Your task to perform on an android device: Open Google Maps Image 0: 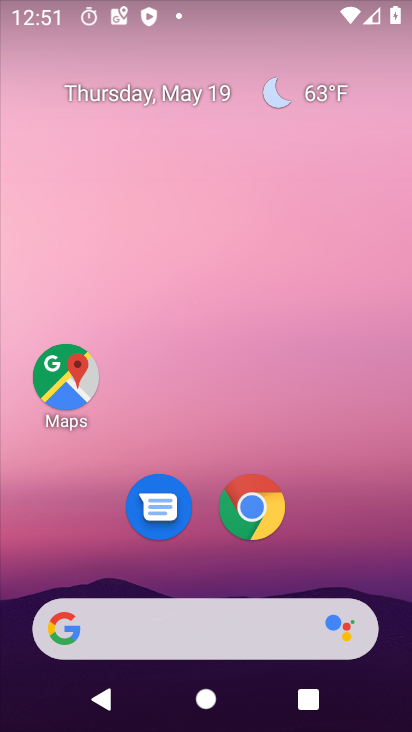
Step 0: drag from (299, 556) to (299, 159)
Your task to perform on an android device: Open Google Maps Image 1: 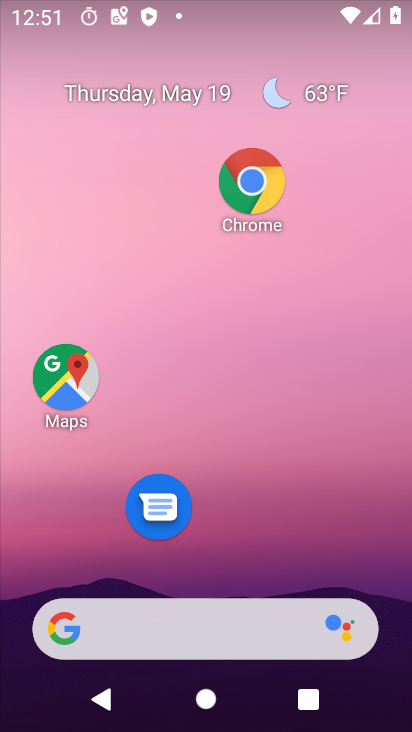
Step 1: click (76, 399)
Your task to perform on an android device: Open Google Maps Image 2: 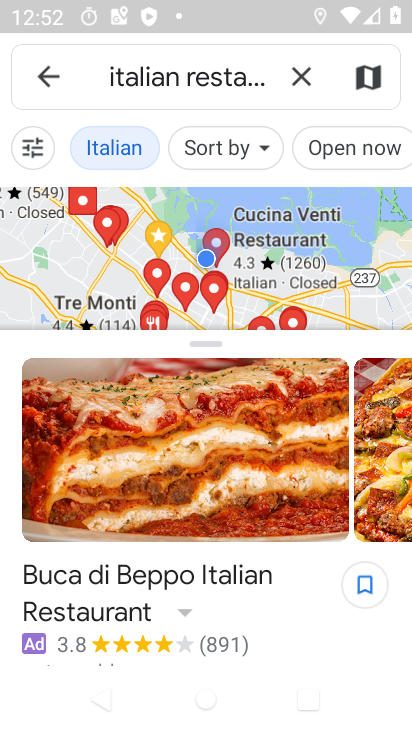
Step 2: task complete